Your task to perform on an android device: Add razer blade to the cart on bestbuy Image 0: 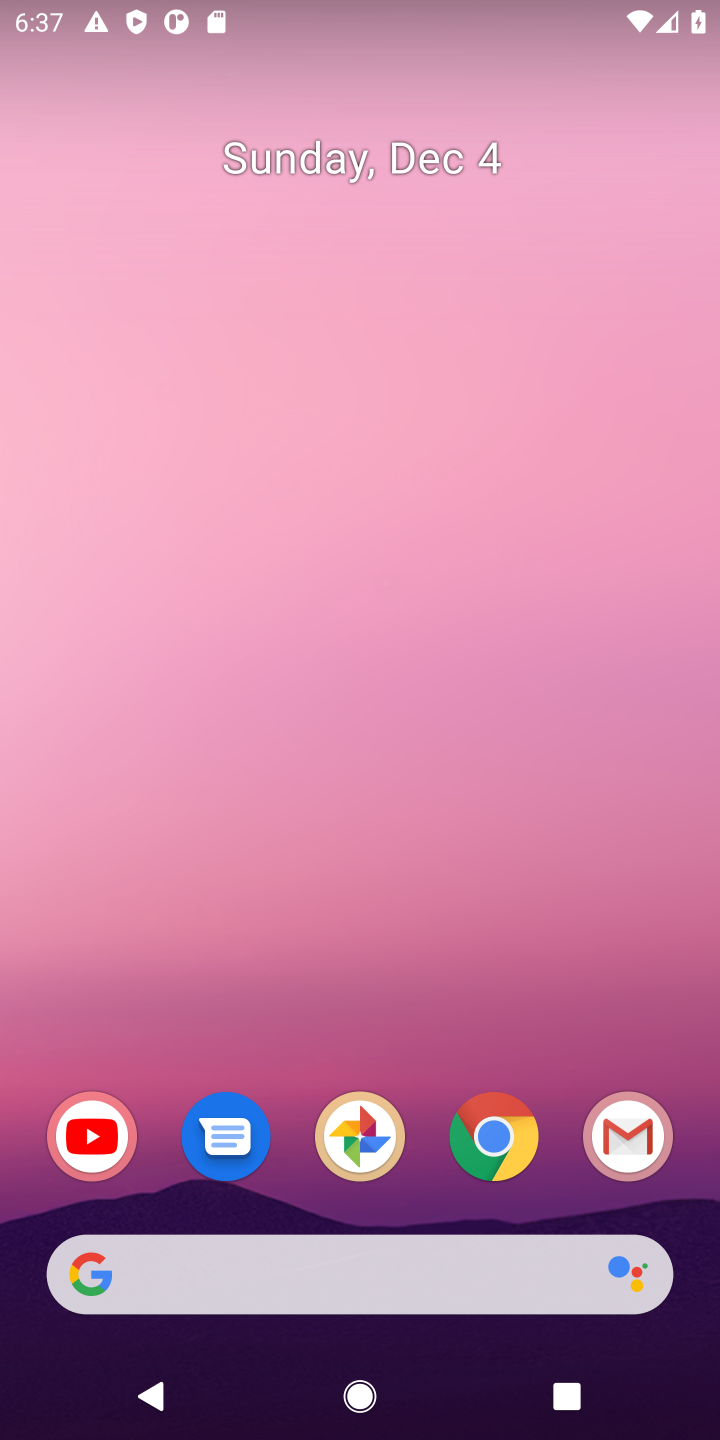
Step 0: click (483, 1152)
Your task to perform on an android device: Add razer blade to the cart on bestbuy Image 1: 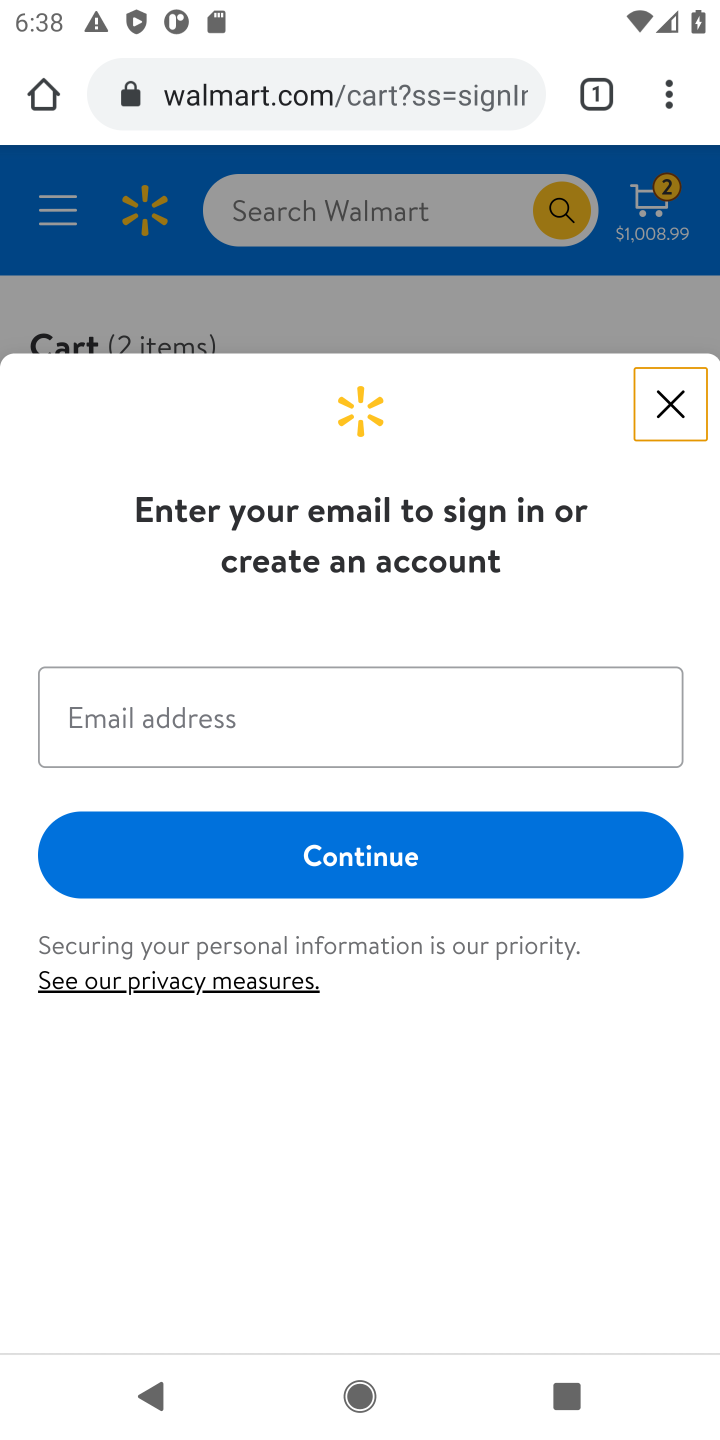
Step 1: click (315, 103)
Your task to perform on an android device: Add razer blade to the cart on bestbuy Image 2: 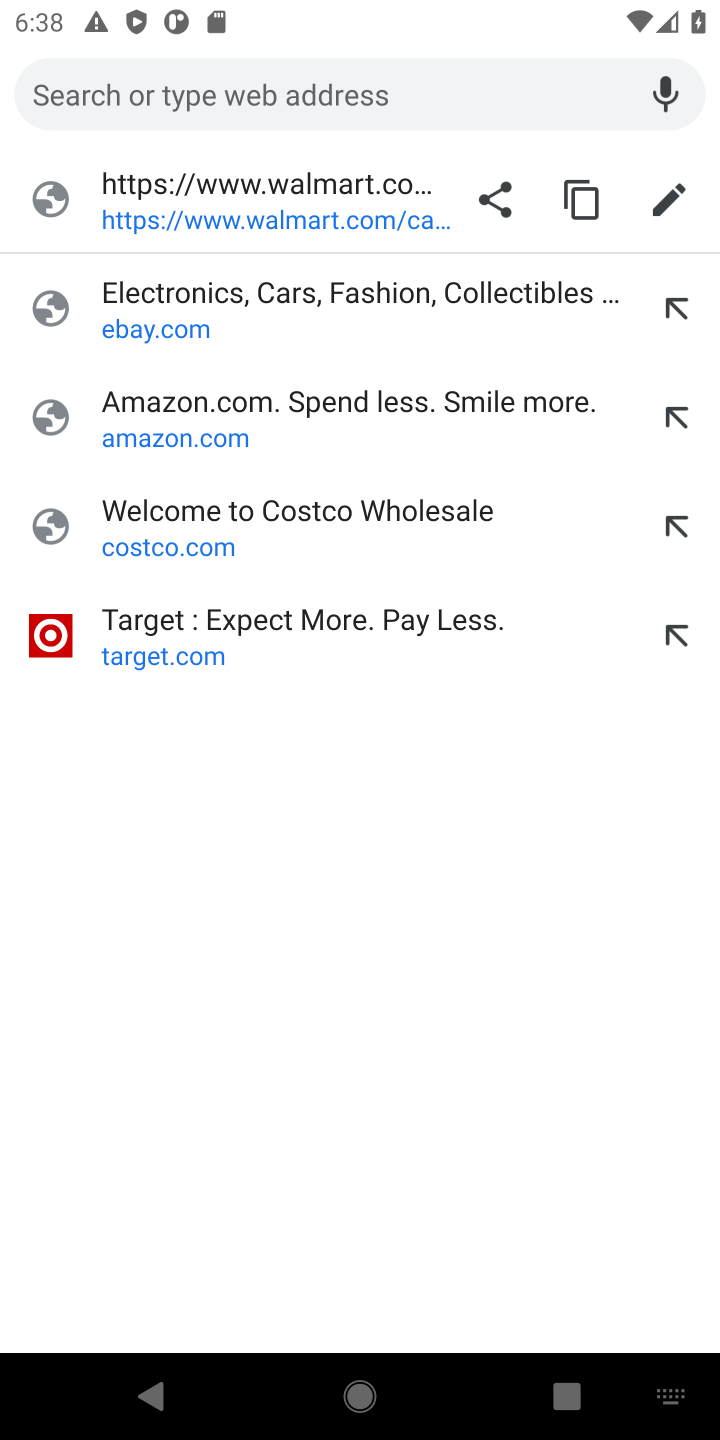
Step 2: type "bestbuy.com"
Your task to perform on an android device: Add razer blade to the cart on bestbuy Image 3: 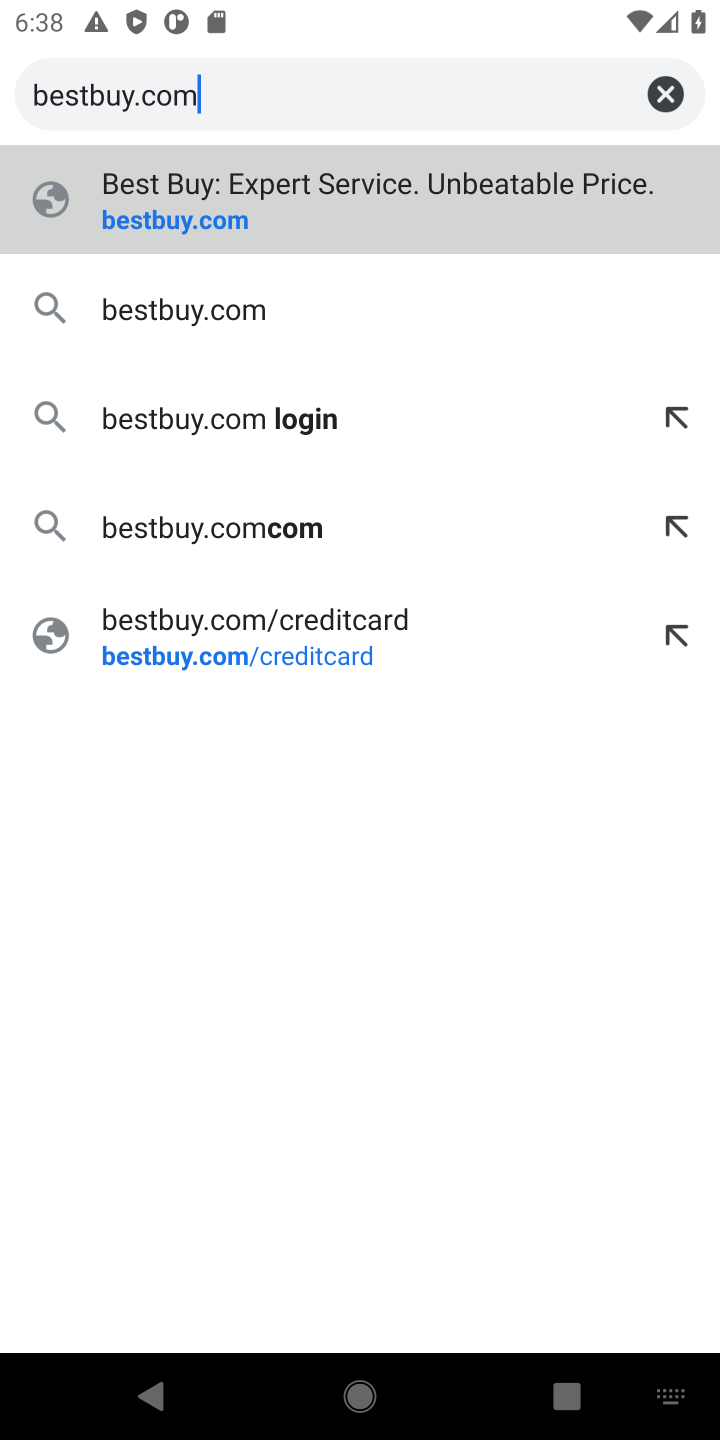
Step 3: click (191, 236)
Your task to perform on an android device: Add razer blade to the cart on bestbuy Image 4: 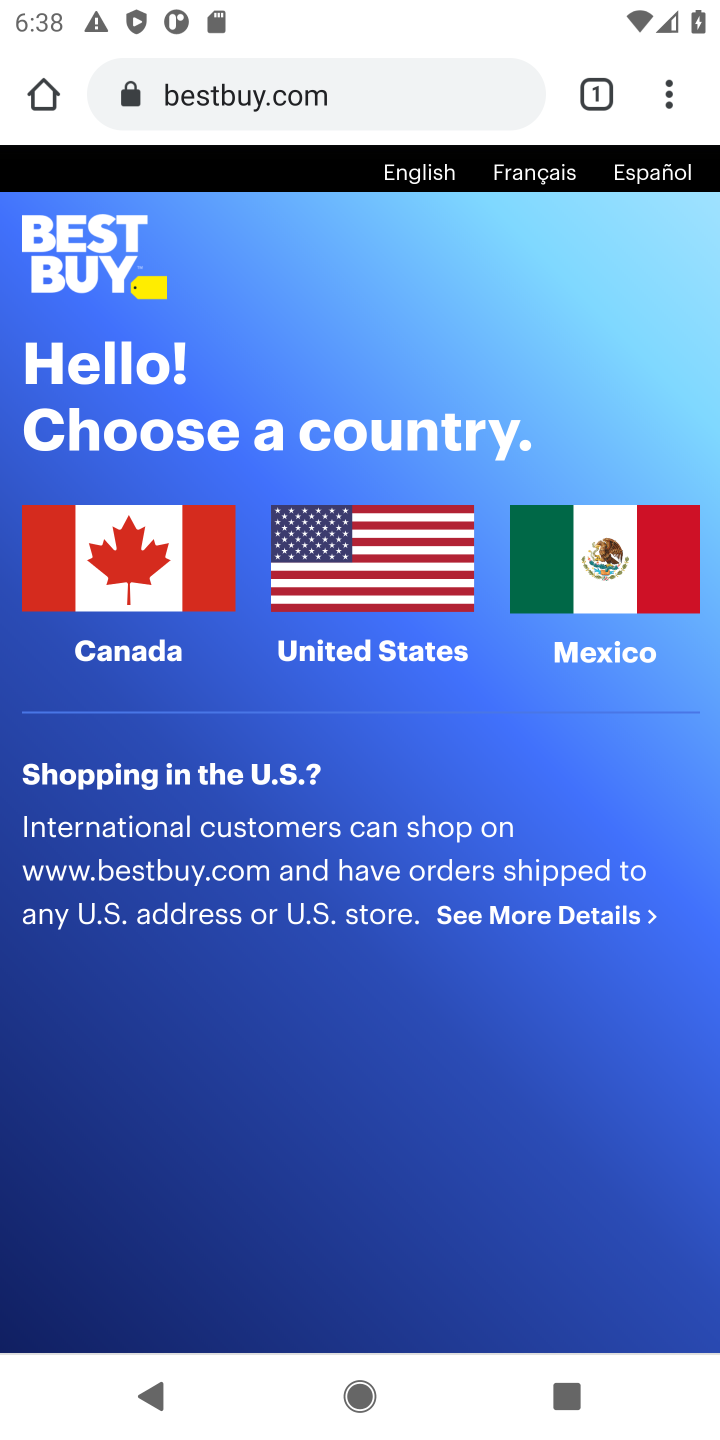
Step 4: click (325, 549)
Your task to perform on an android device: Add razer blade to the cart on bestbuy Image 5: 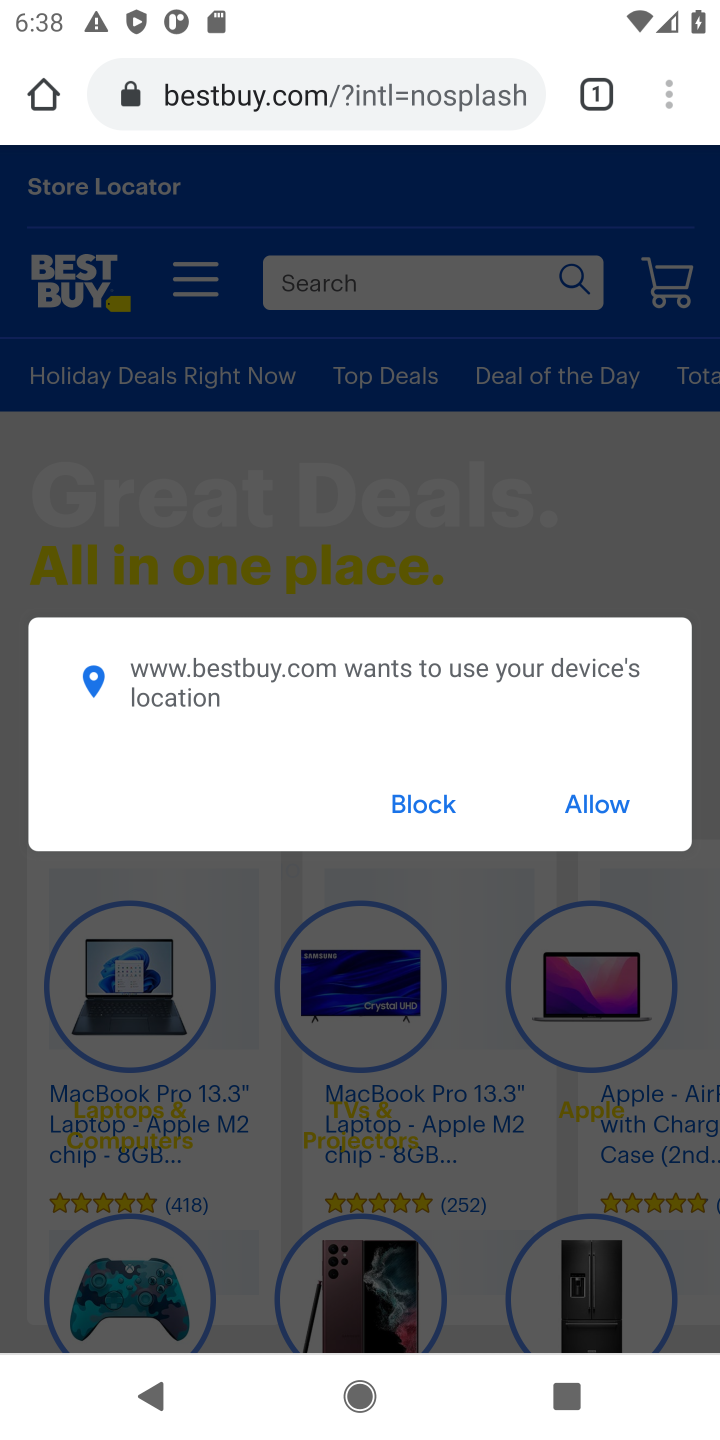
Step 5: click (421, 819)
Your task to perform on an android device: Add razer blade to the cart on bestbuy Image 6: 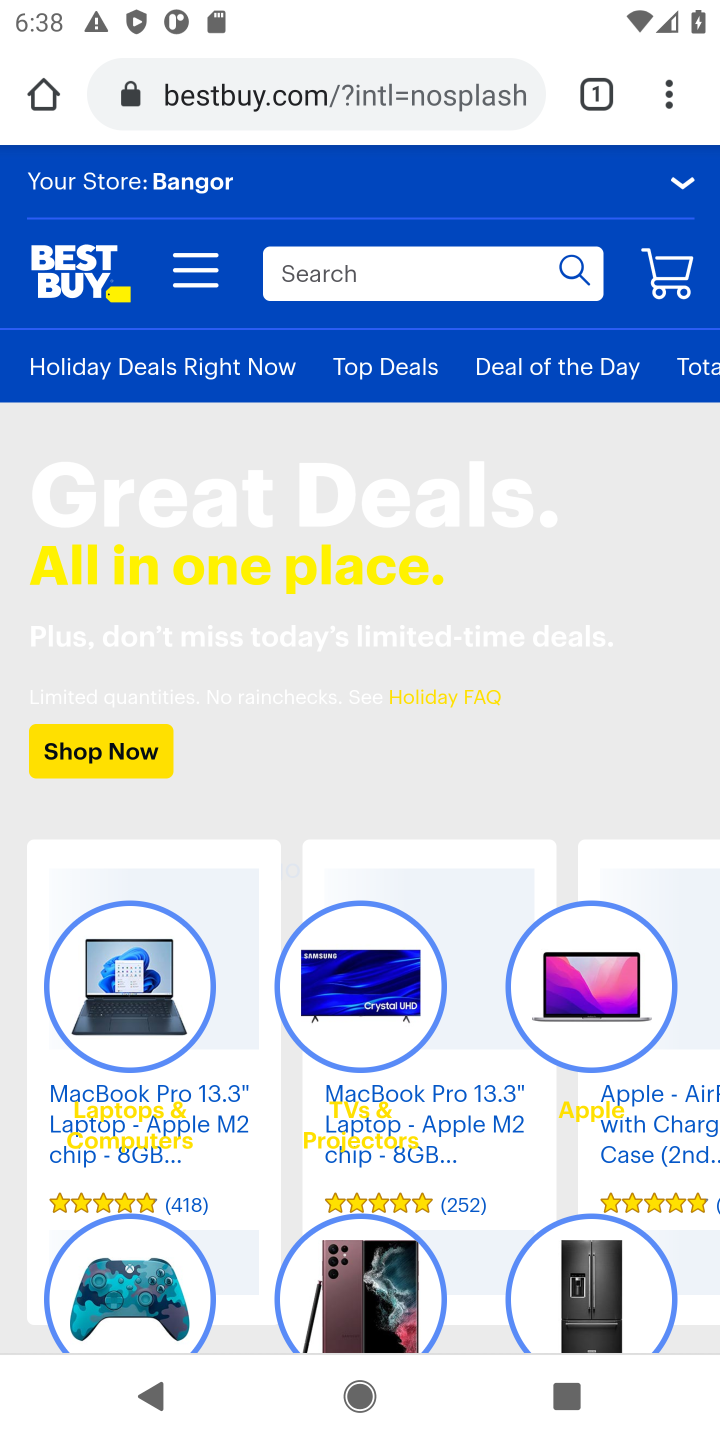
Step 6: click (344, 272)
Your task to perform on an android device: Add razer blade to the cart on bestbuy Image 7: 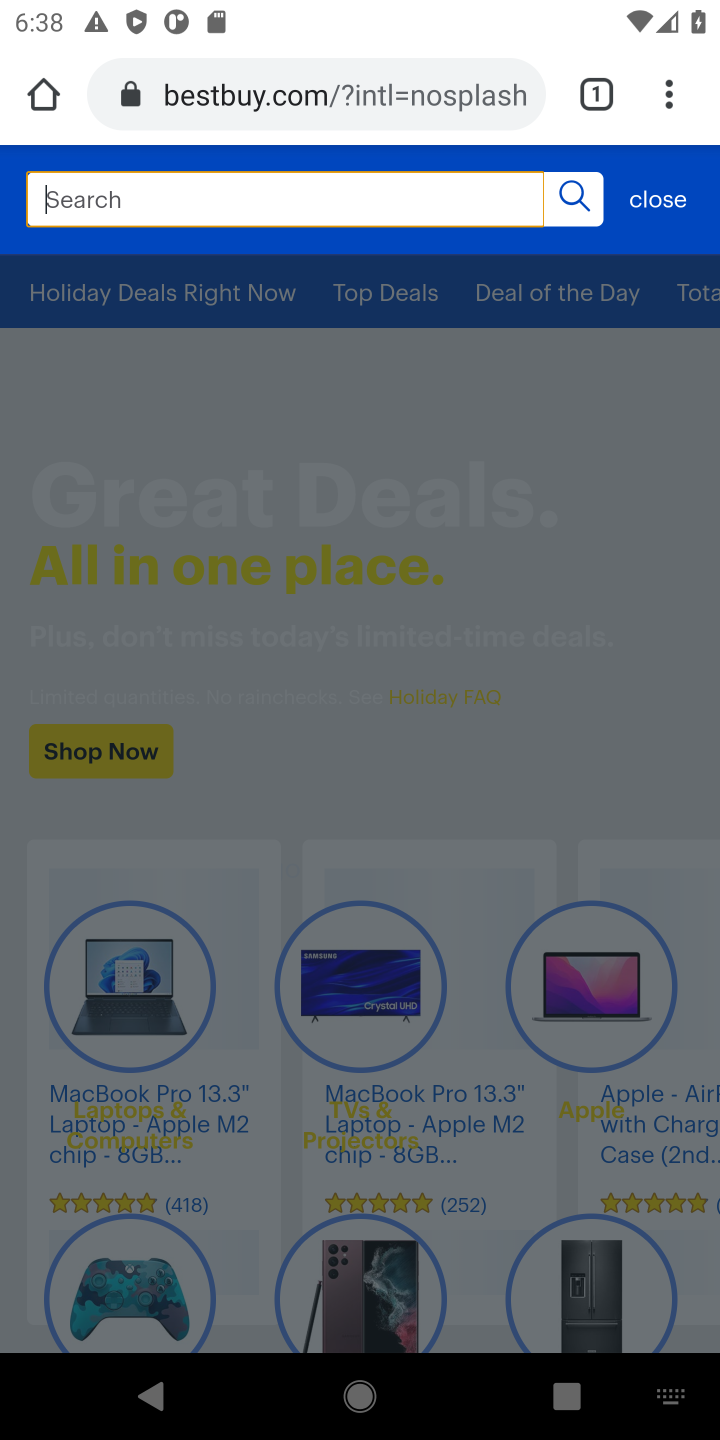
Step 7: type "razer blade"
Your task to perform on an android device: Add razer blade to the cart on bestbuy Image 8: 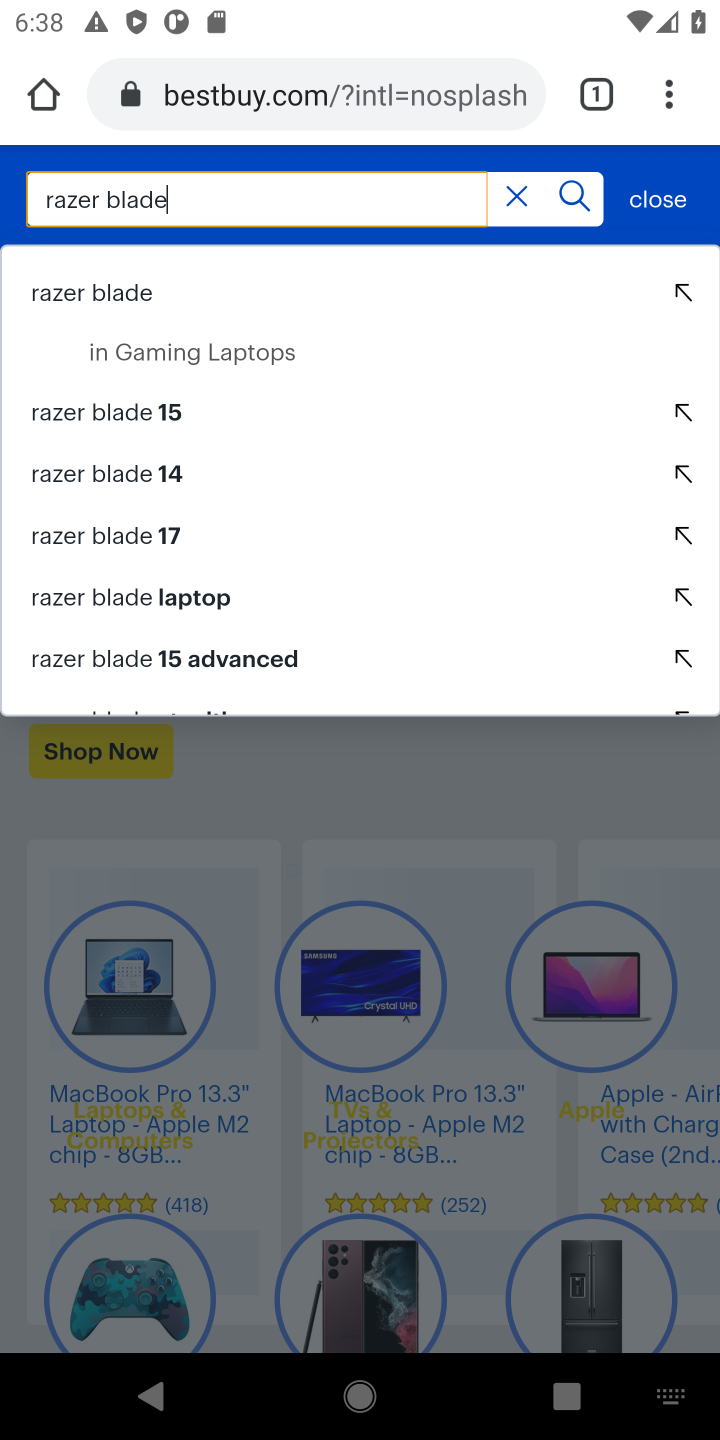
Step 8: click (85, 294)
Your task to perform on an android device: Add razer blade to the cart on bestbuy Image 9: 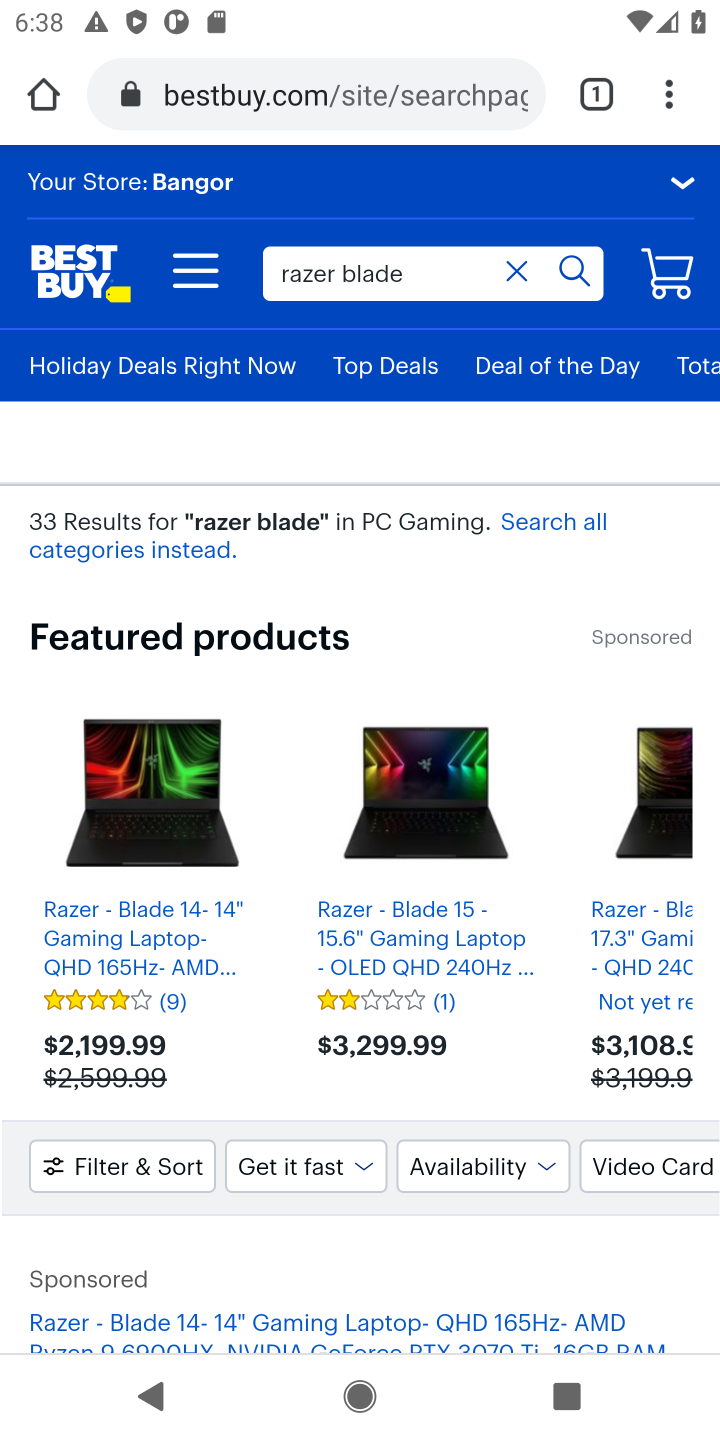
Step 9: drag from (263, 965) to (297, 342)
Your task to perform on an android device: Add razer blade to the cart on bestbuy Image 10: 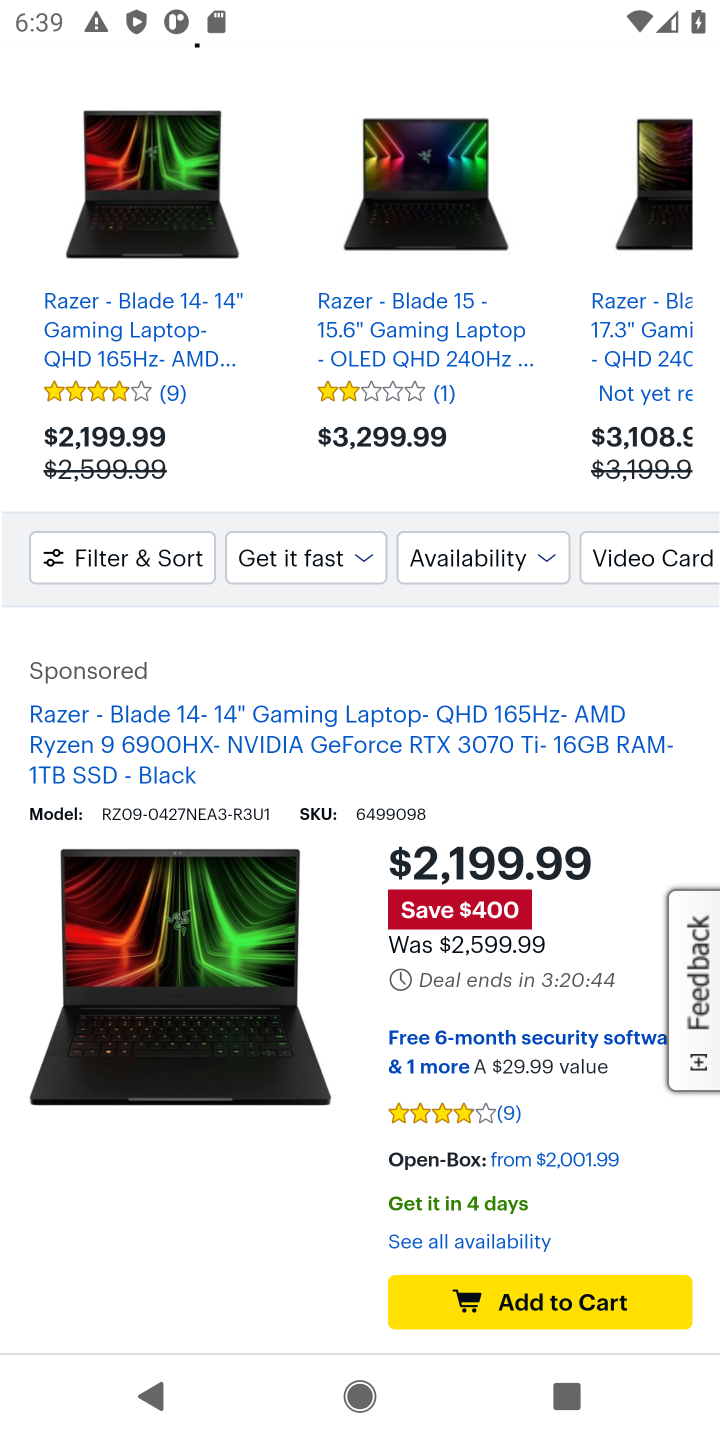
Step 10: click (528, 1300)
Your task to perform on an android device: Add razer blade to the cart on bestbuy Image 11: 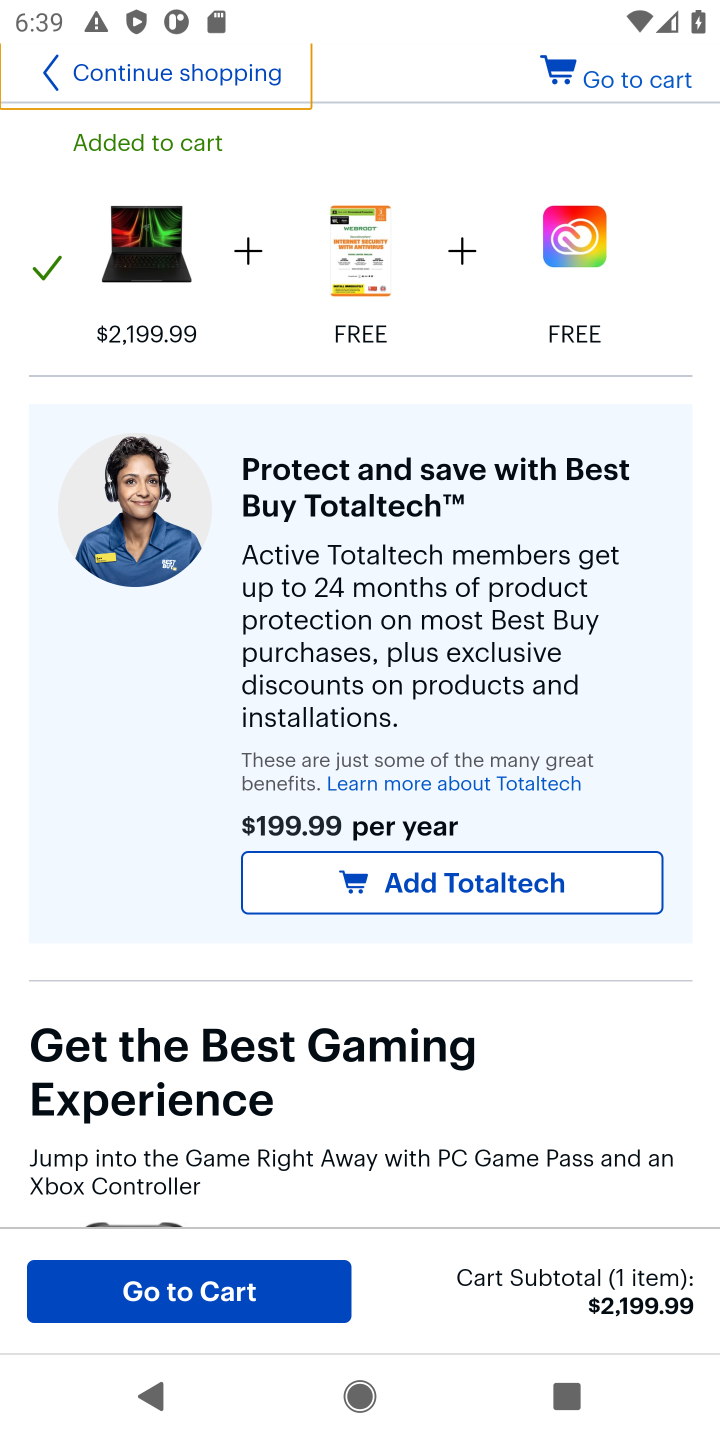
Step 11: task complete